Your task to perform on an android device: Open Chrome and go to settings Image 0: 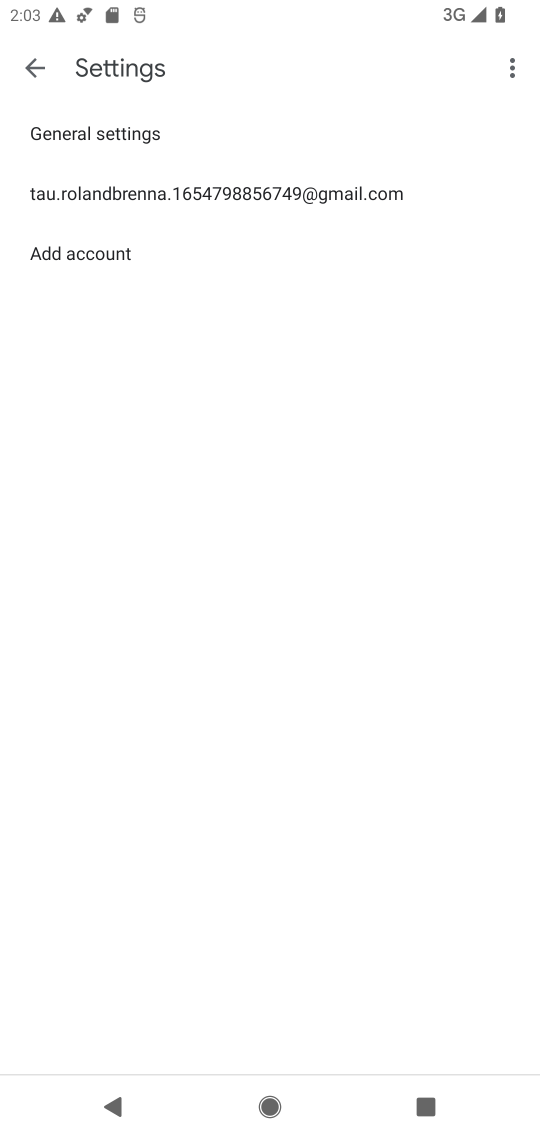
Step 0: press home button
Your task to perform on an android device: Open Chrome and go to settings Image 1: 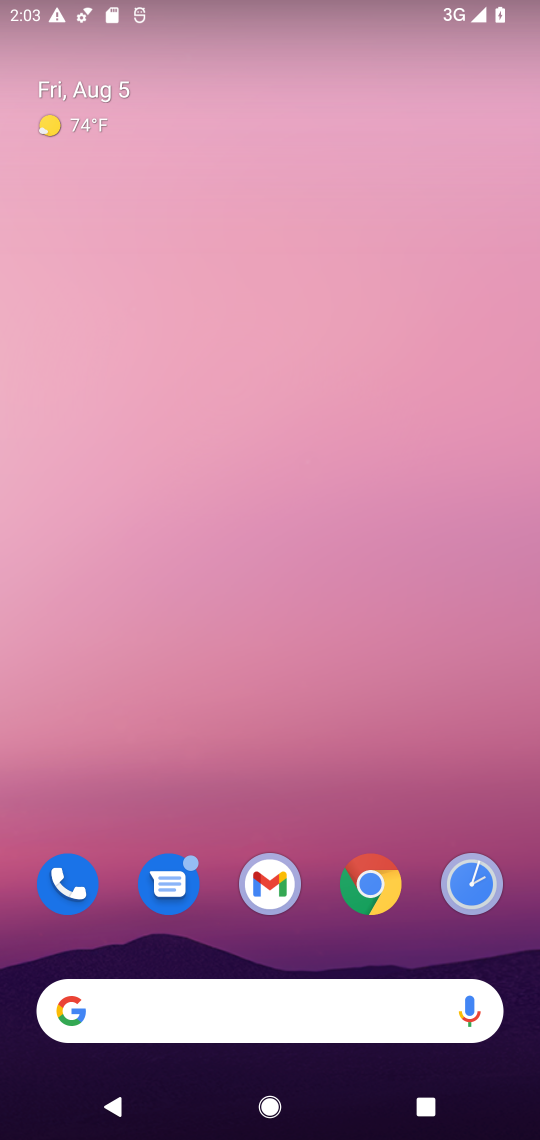
Step 1: drag from (454, 984) to (307, 187)
Your task to perform on an android device: Open Chrome and go to settings Image 2: 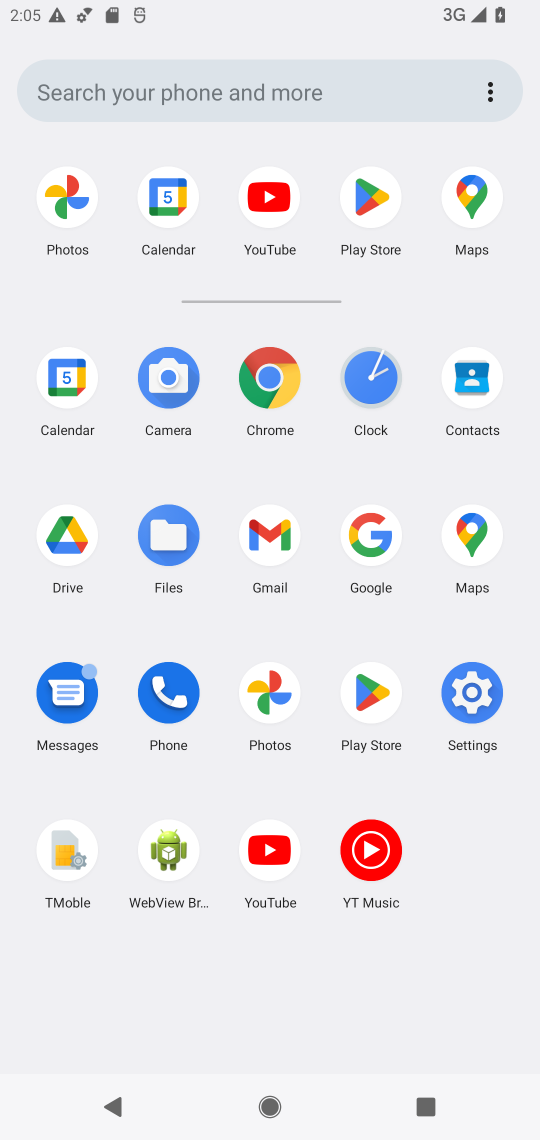
Step 2: click (279, 378)
Your task to perform on an android device: Open Chrome and go to settings Image 3: 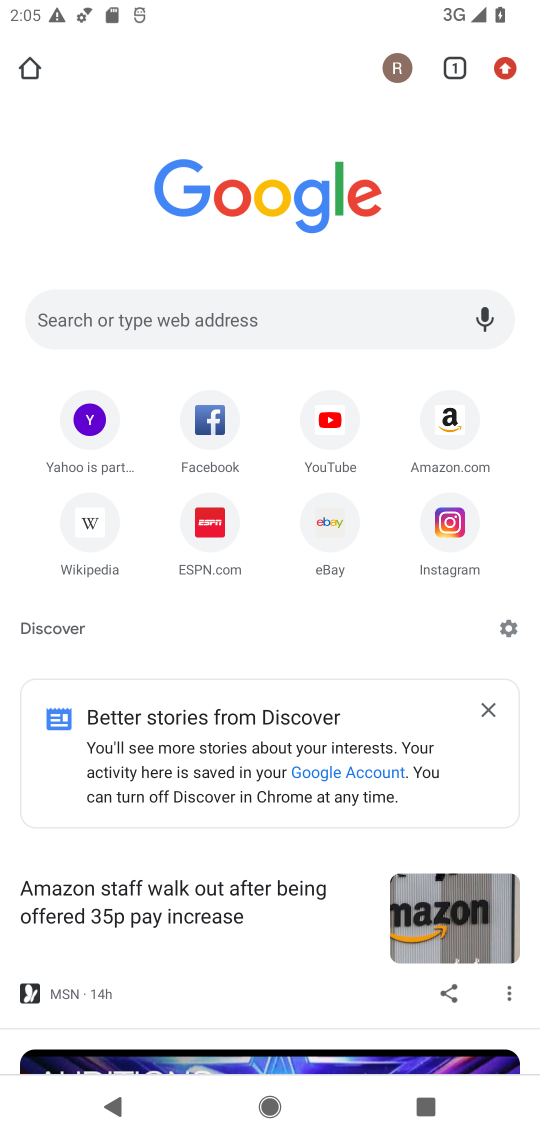
Step 3: click (509, 65)
Your task to perform on an android device: Open Chrome and go to settings Image 4: 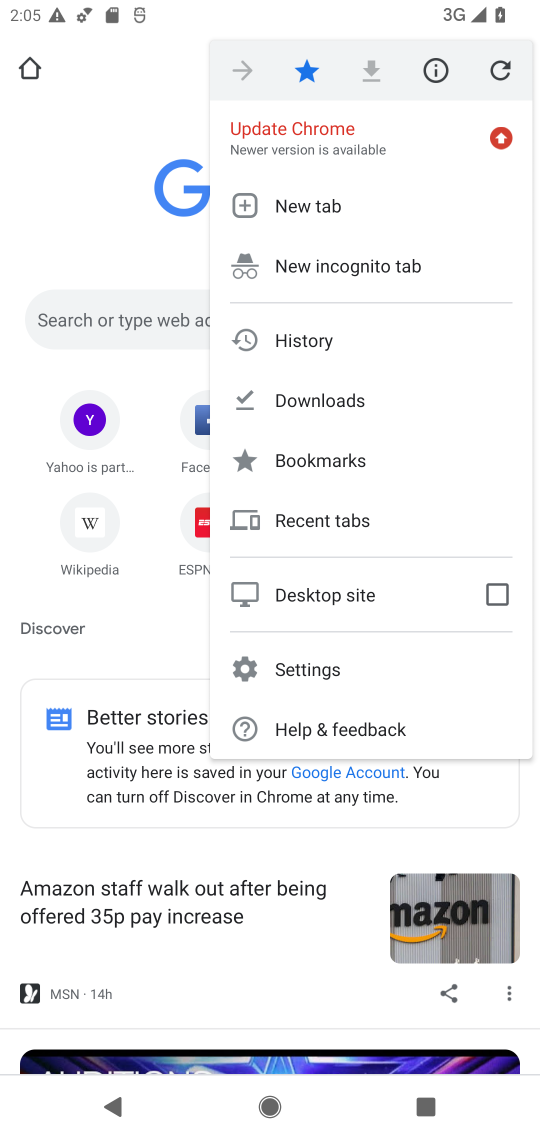
Step 4: click (306, 664)
Your task to perform on an android device: Open Chrome and go to settings Image 5: 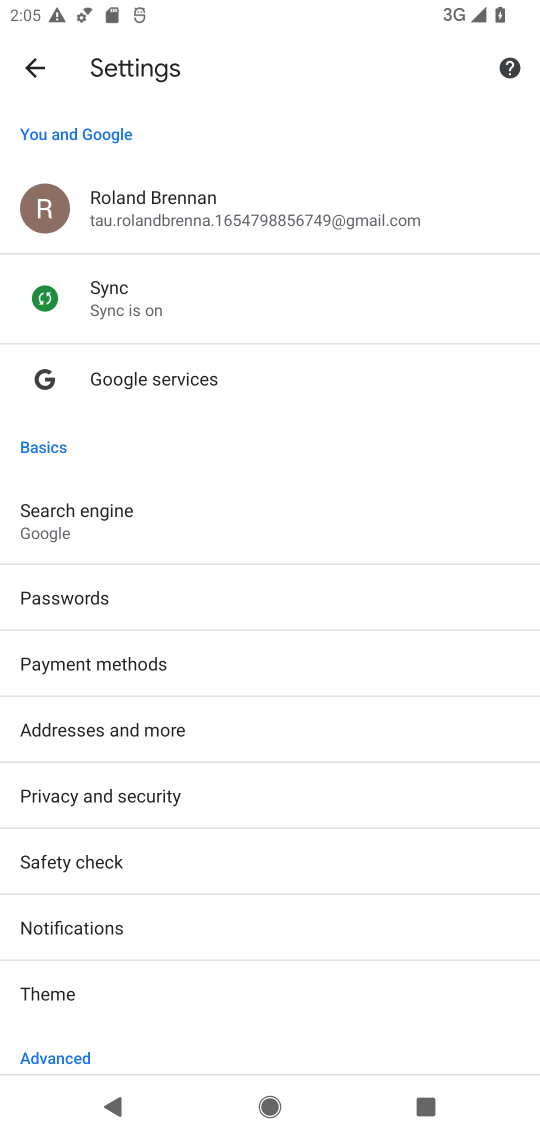
Step 5: task complete